Your task to perform on an android device: change notification settings in the gmail app Image 0: 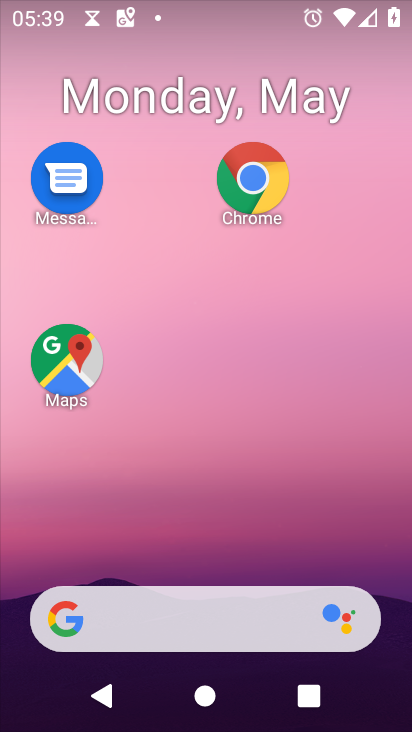
Step 0: drag from (182, 462) to (152, 48)
Your task to perform on an android device: change notification settings in the gmail app Image 1: 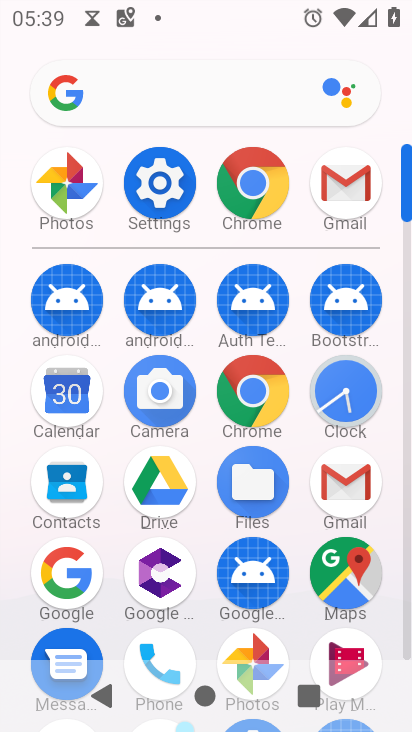
Step 1: click (323, 492)
Your task to perform on an android device: change notification settings in the gmail app Image 2: 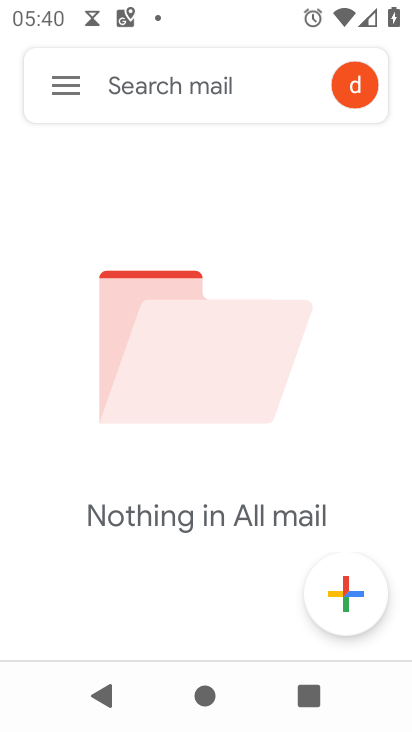
Step 2: click (70, 88)
Your task to perform on an android device: change notification settings in the gmail app Image 3: 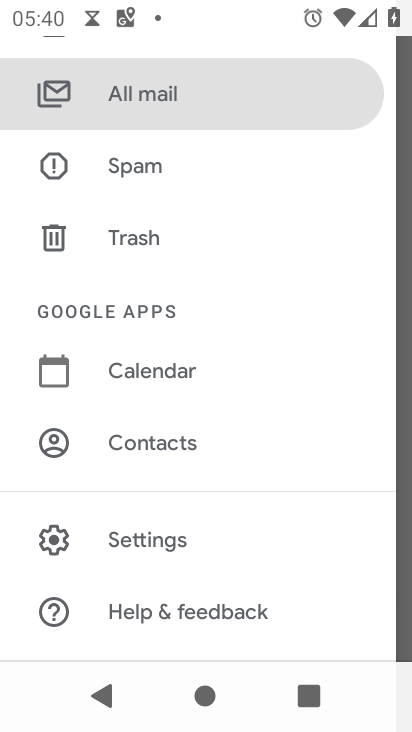
Step 3: click (173, 539)
Your task to perform on an android device: change notification settings in the gmail app Image 4: 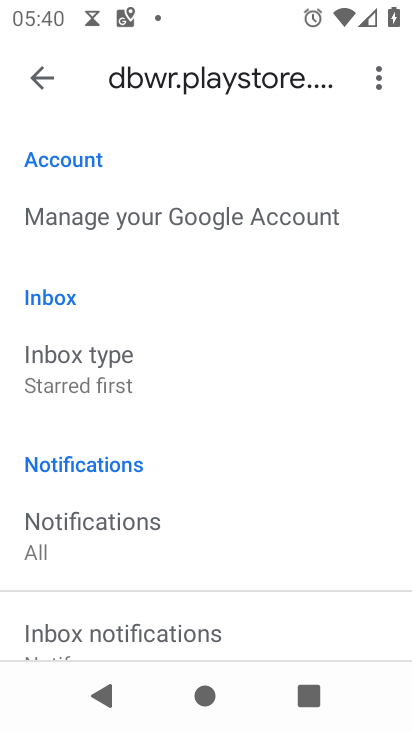
Step 4: click (93, 549)
Your task to perform on an android device: change notification settings in the gmail app Image 5: 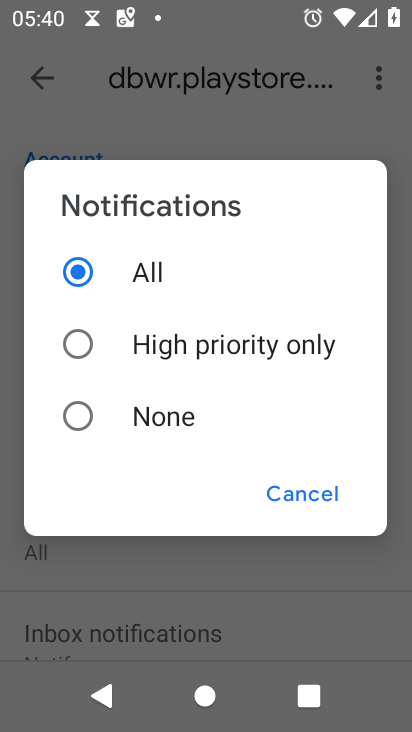
Step 5: click (85, 428)
Your task to perform on an android device: change notification settings in the gmail app Image 6: 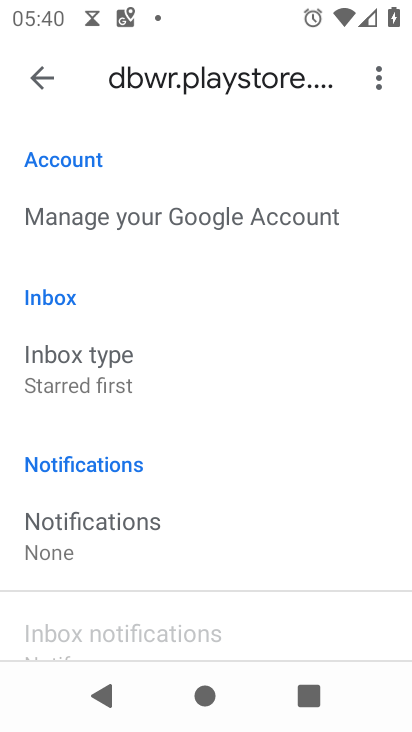
Step 6: task complete